Your task to perform on an android device: Open eBay Image 0: 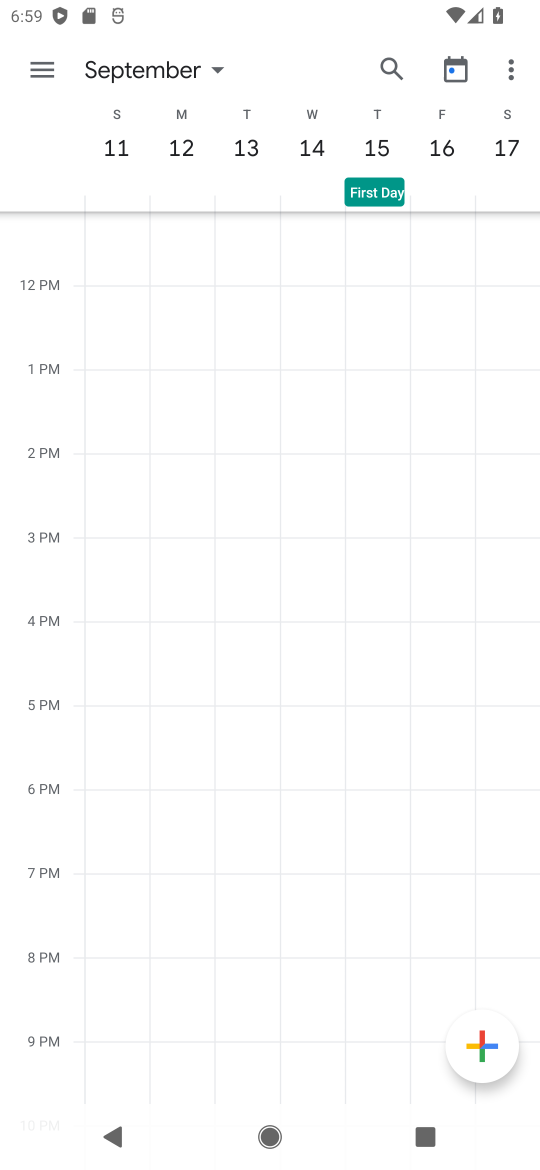
Step 0: press home button
Your task to perform on an android device: Open eBay Image 1: 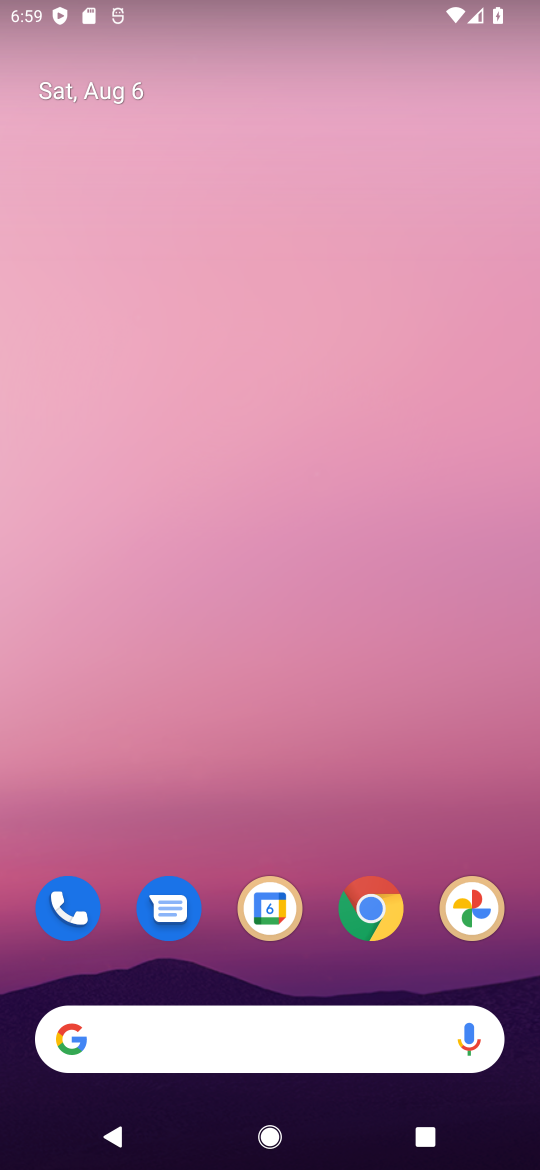
Step 1: click (363, 920)
Your task to perform on an android device: Open eBay Image 2: 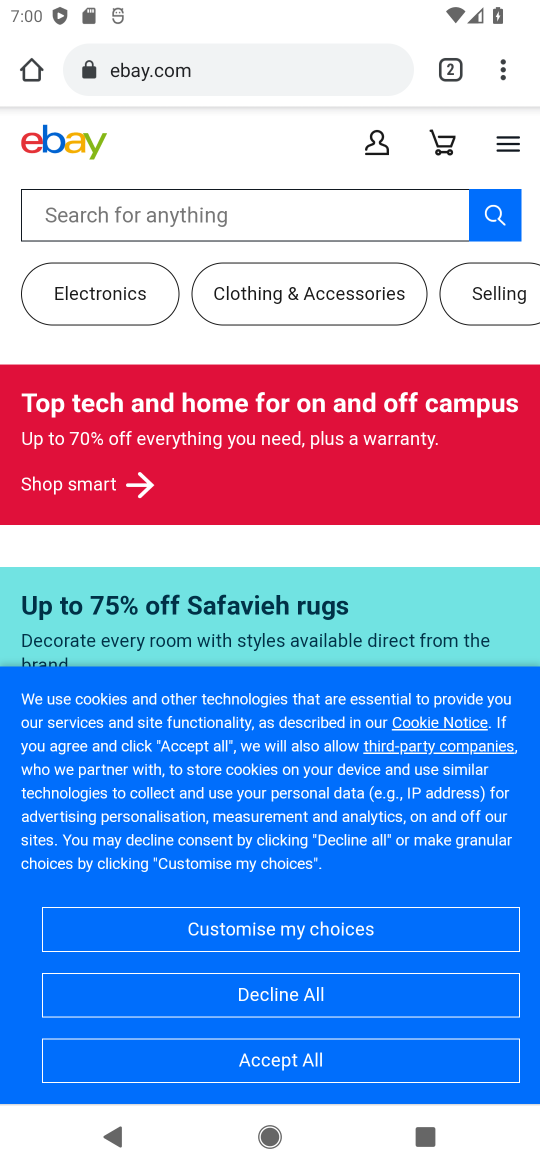
Step 2: task complete